Your task to perform on an android device: What's the weather going to be tomorrow? Image 0: 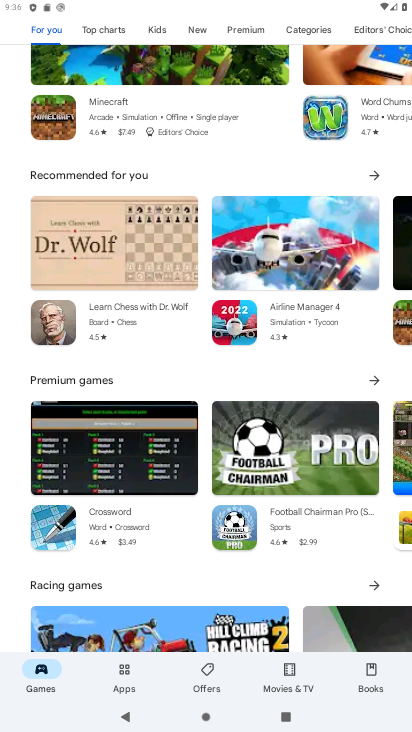
Step 0: press home button
Your task to perform on an android device: What's the weather going to be tomorrow? Image 1: 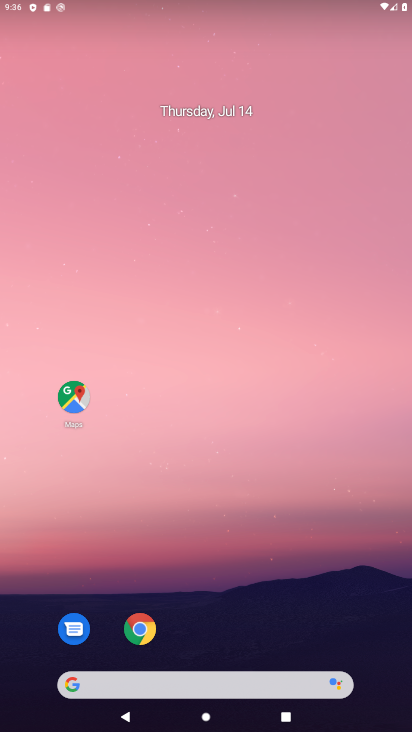
Step 1: drag from (206, 636) to (205, 107)
Your task to perform on an android device: What's the weather going to be tomorrow? Image 2: 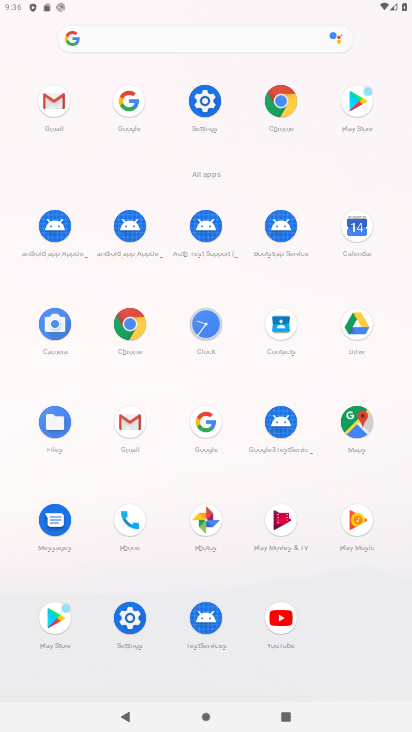
Step 2: click (207, 424)
Your task to perform on an android device: What's the weather going to be tomorrow? Image 3: 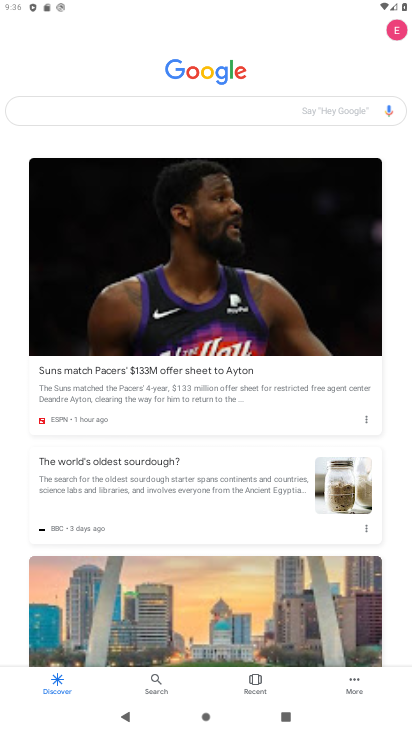
Step 3: click (160, 117)
Your task to perform on an android device: What's the weather going to be tomorrow? Image 4: 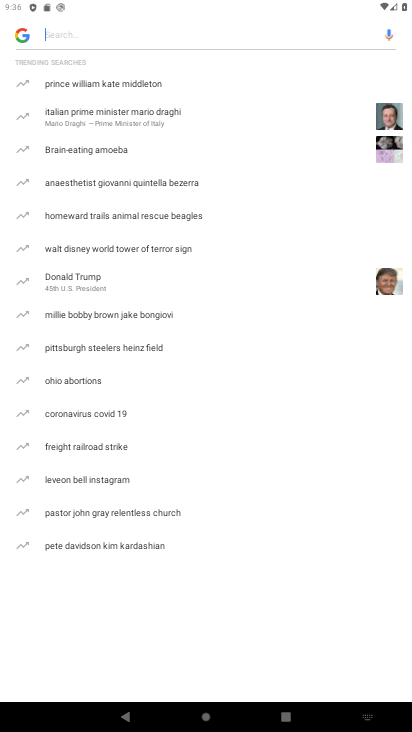
Step 4: type "What's the weather going to be tomorrow?"
Your task to perform on an android device: What's the weather going to be tomorrow? Image 5: 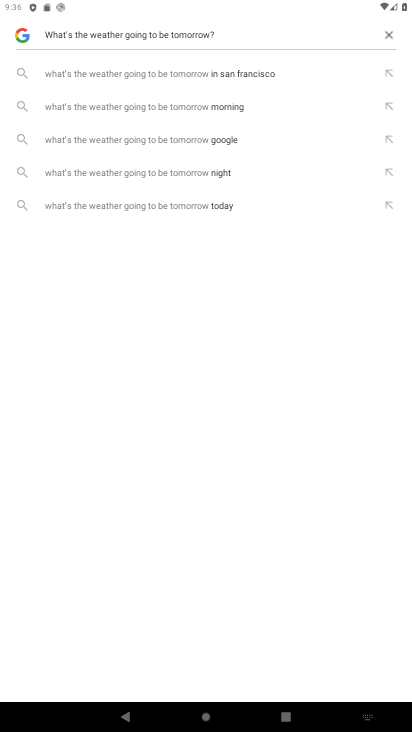
Step 5: task complete